Your task to perform on an android device: move an email to a new category in the gmail app Image 0: 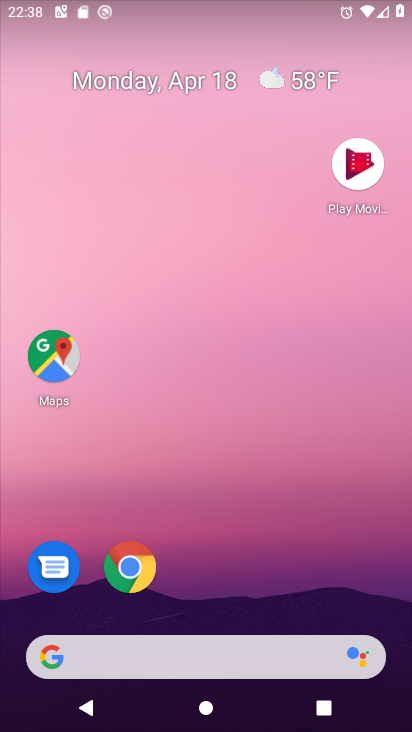
Step 0: drag from (205, 605) to (201, 170)
Your task to perform on an android device: move an email to a new category in the gmail app Image 1: 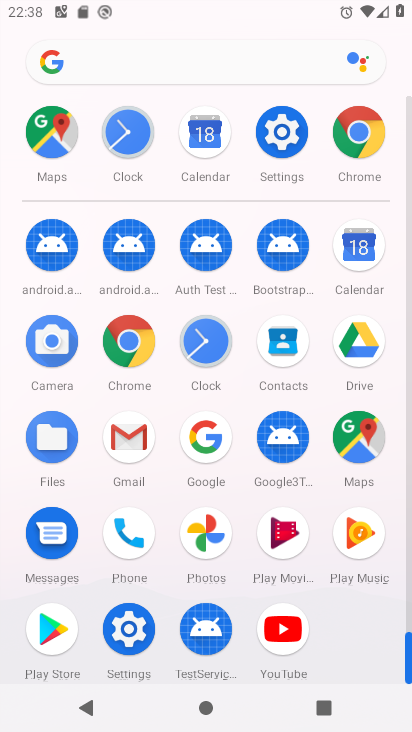
Step 1: click (133, 441)
Your task to perform on an android device: move an email to a new category in the gmail app Image 2: 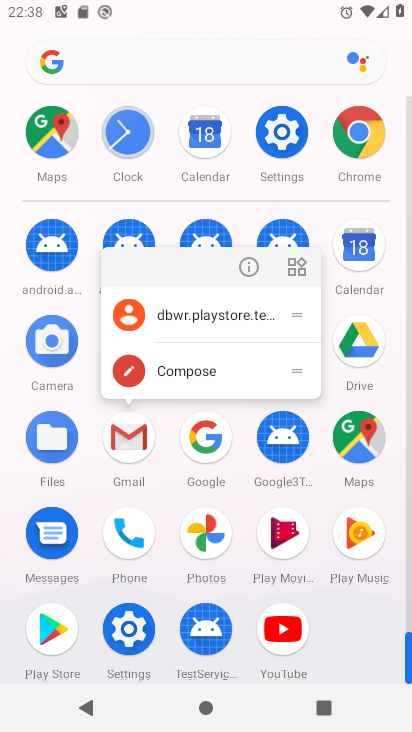
Step 2: click (253, 259)
Your task to perform on an android device: move an email to a new category in the gmail app Image 3: 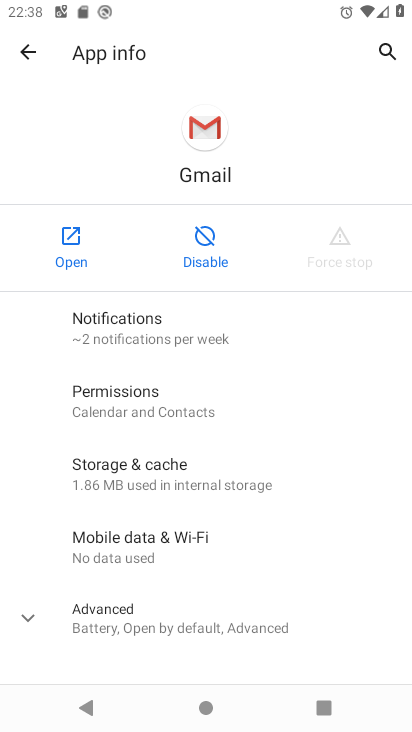
Step 3: click (67, 231)
Your task to perform on an android device: move an email to a new category in the gmail app Image 4: 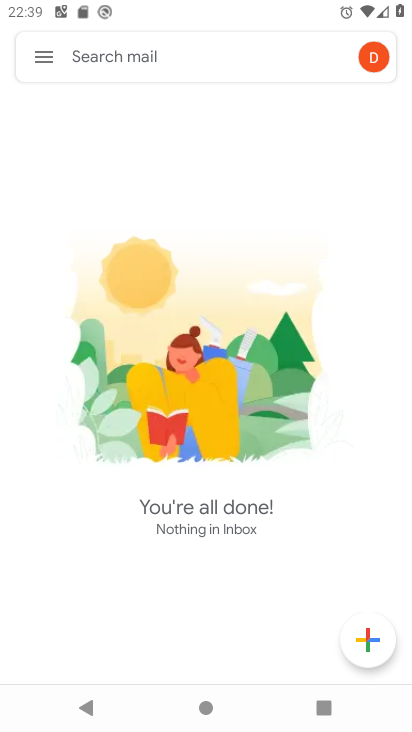
Step 4: task complete